Your task to perform on an android device: clear all cookies in the chrome app Image 0: 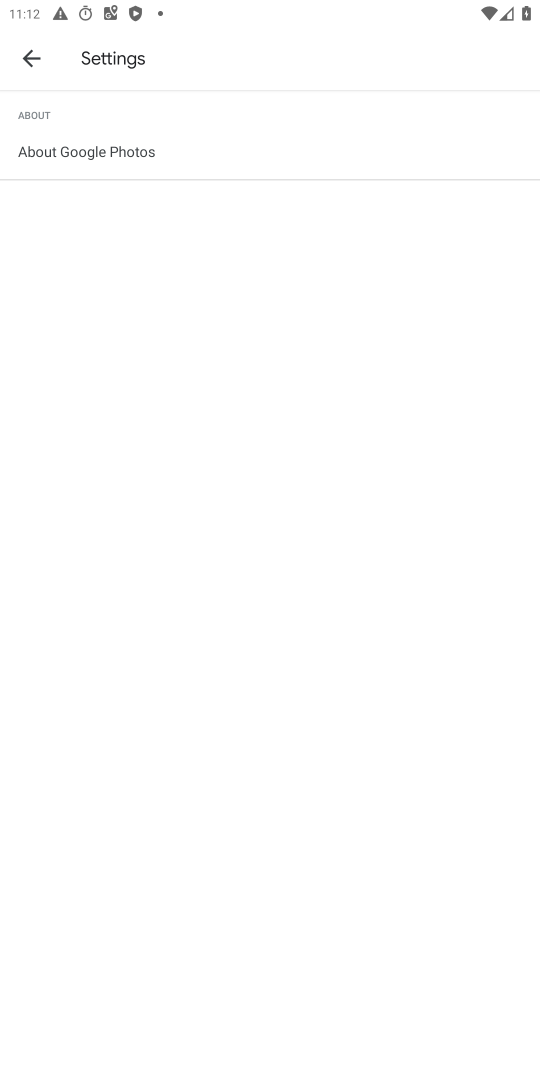
Step 0: press home button
Your task to perform on an android device: clear all cookies in the chrome app Image 1: 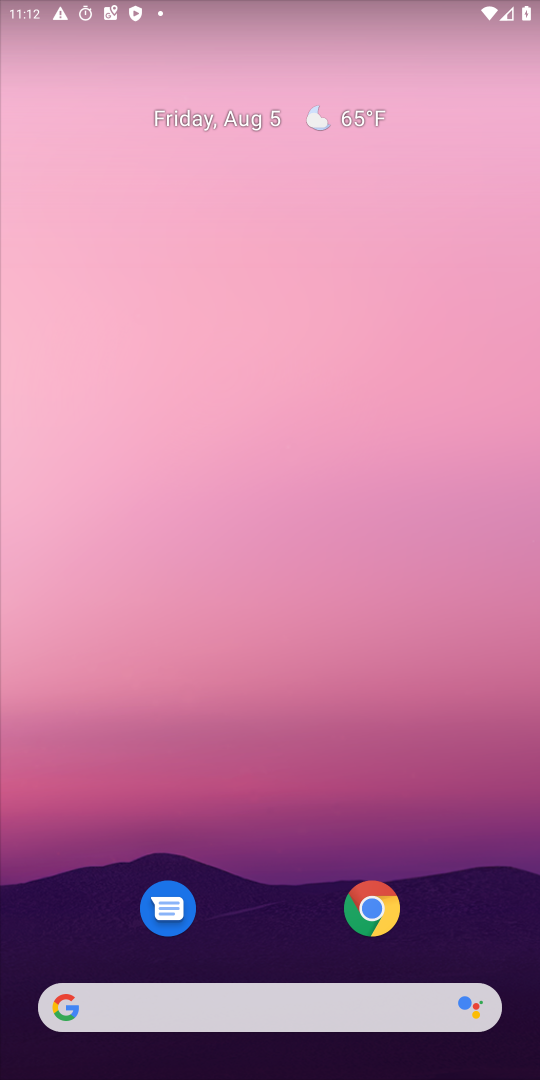
Step 1: click (378, 886)
Your task to perform on an android device: clear all cookies in the chrome app Image 2: 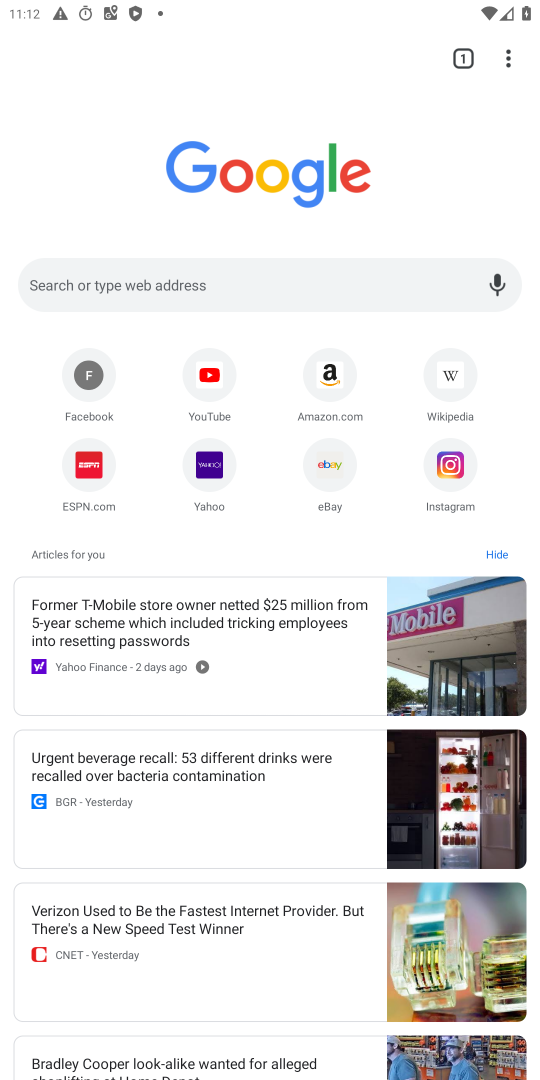
Step 2: click (518, 55)
Your task to perform on an android device: clear all cookies in the chrome app Image 3: 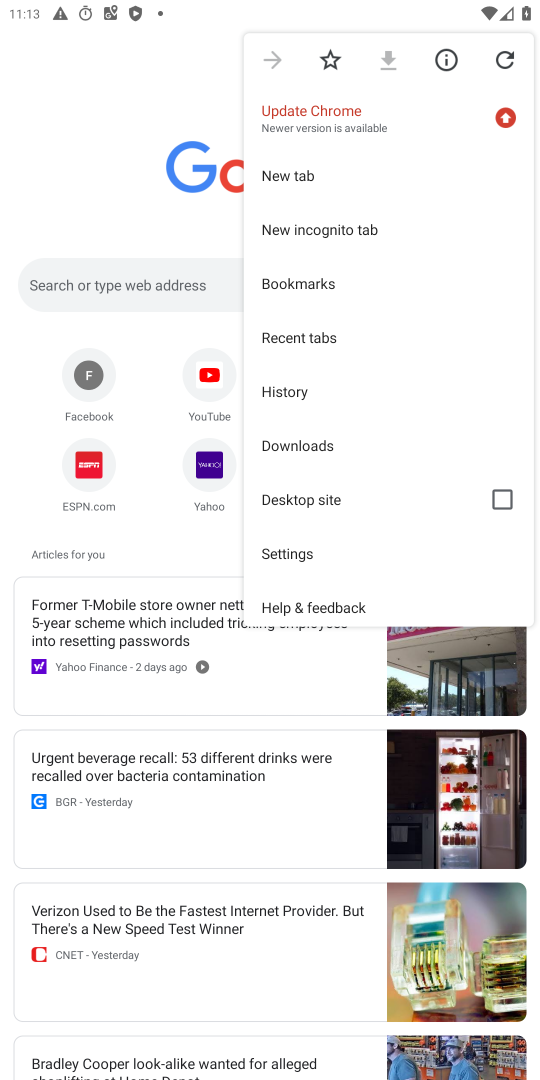
Step 3: click (290, 392)
Your task to perform on an android device: clear all cookies in the chrome app Image 4: 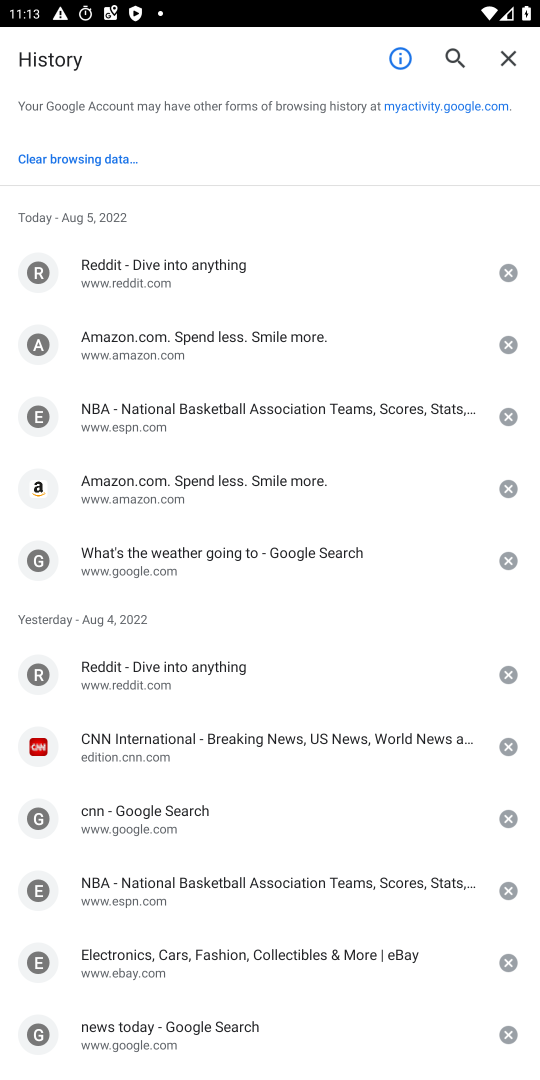
Step 4: click (95, 159)
Your task to perform on an android device: clear all cookies in the chrome app Image 5: 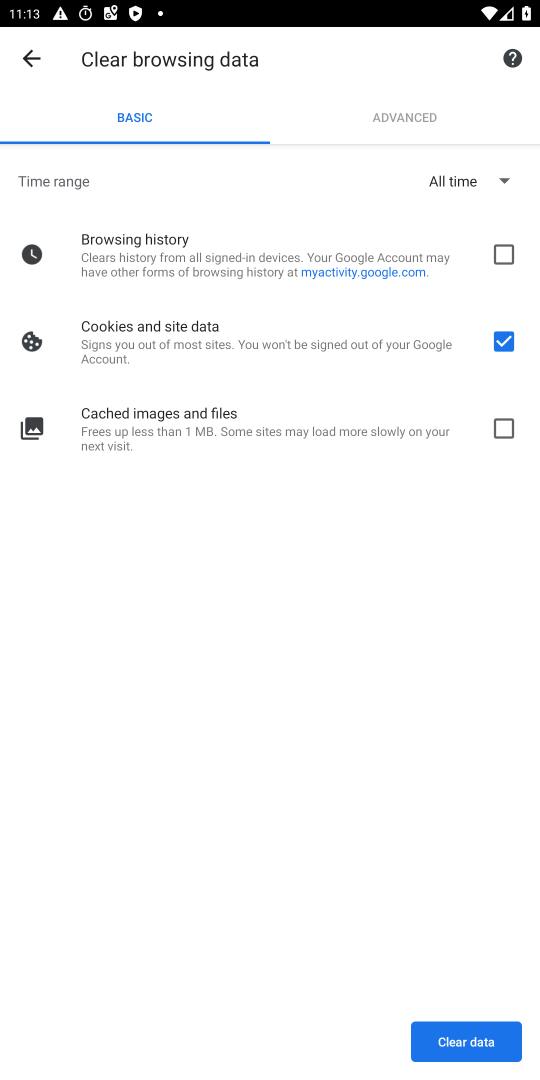
Step 5: click (461, 1045)
Your task to perform on an android device: clear all cookies in the chrome app Image 6: 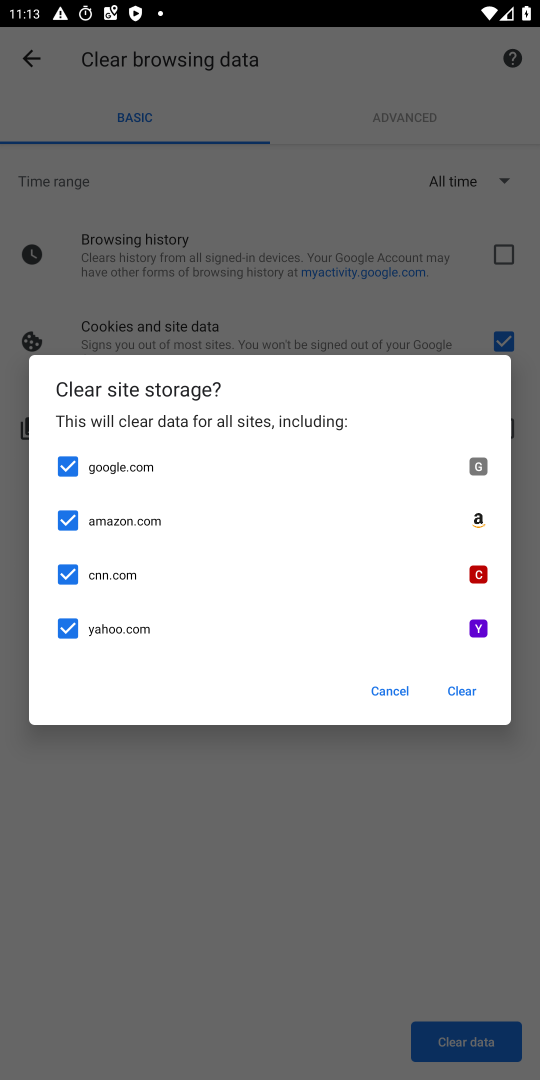
Step 6: click (459, 707)
Your task to perform on an android device: clear all cookies in the chrome app Image 7: 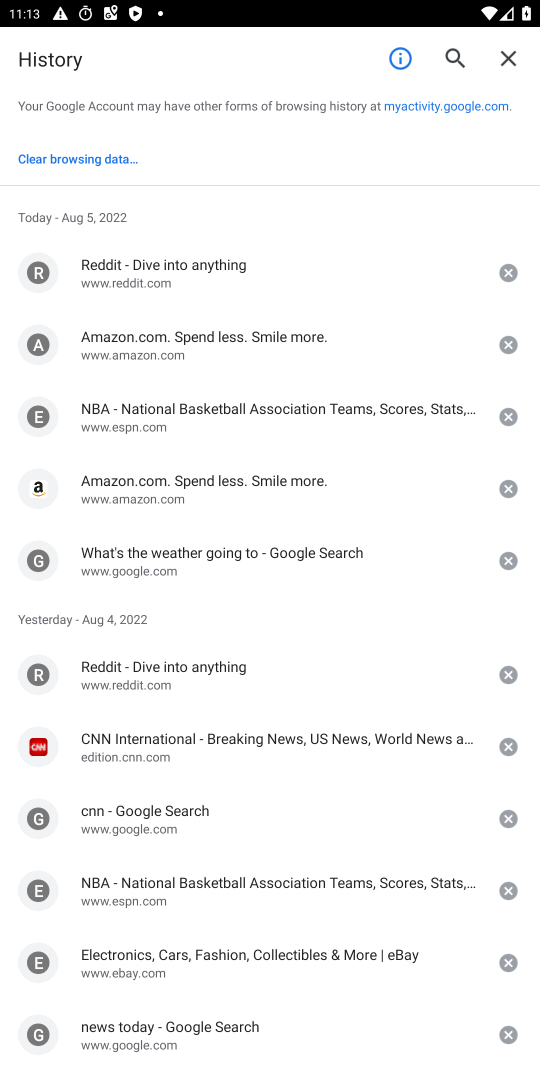
Step 7: task complete